Your task to perform on an android device: manage bookmarks in the chrome app Image 0: 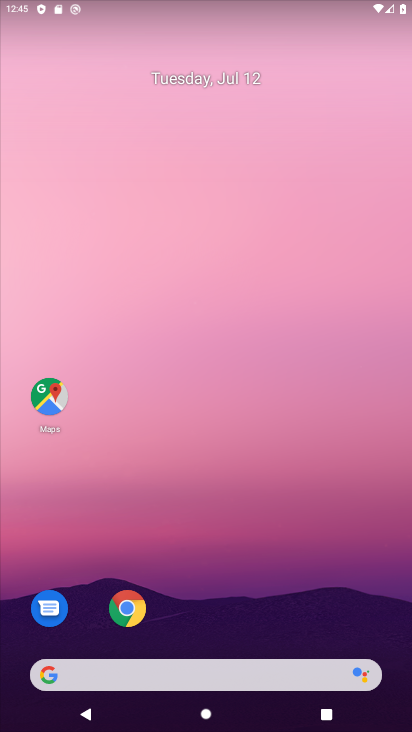
Step 0: drag from (271, 647) to (271, 306)
Your task to perform on an android device: manage bookmarks in the chrome app Image 1: 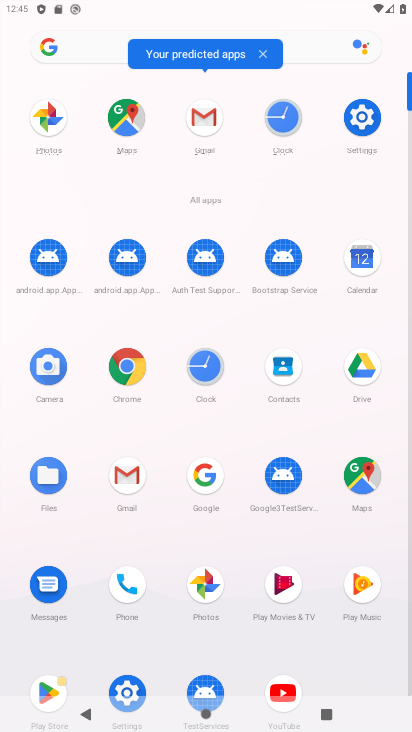
Step 1: click (140, 366)
Your task to perform on an android device: manage bookmarks in the chrome app Image 2: 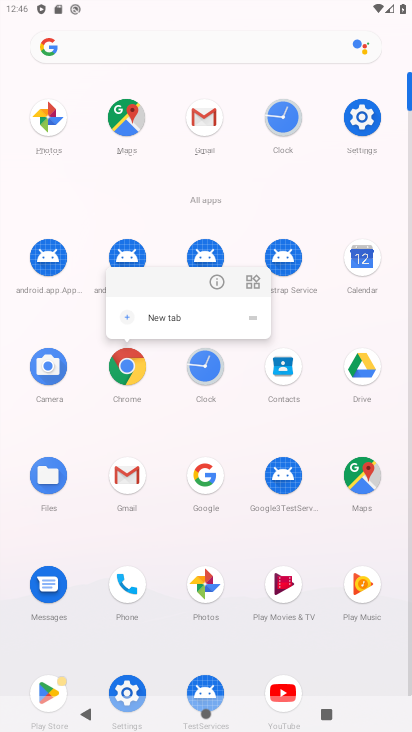
Step 2: click (124, 359)
Your task to perform on an android device: manage bookmarks in the chrome app Image 3: 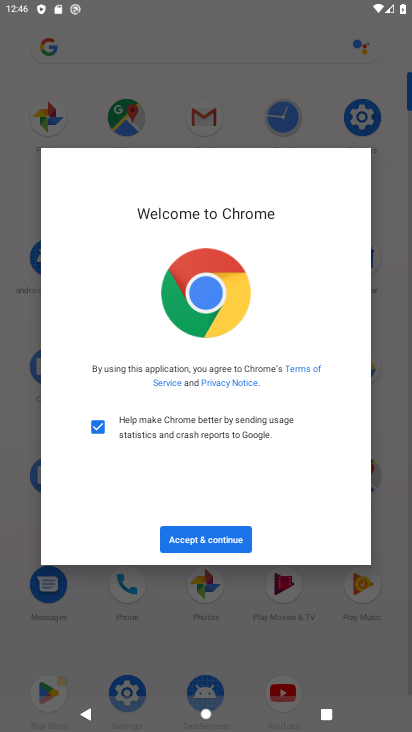
Step 3: click (218, 532)
Your task to perform on an android device: manage bookmarks in the chrome app Image 4: 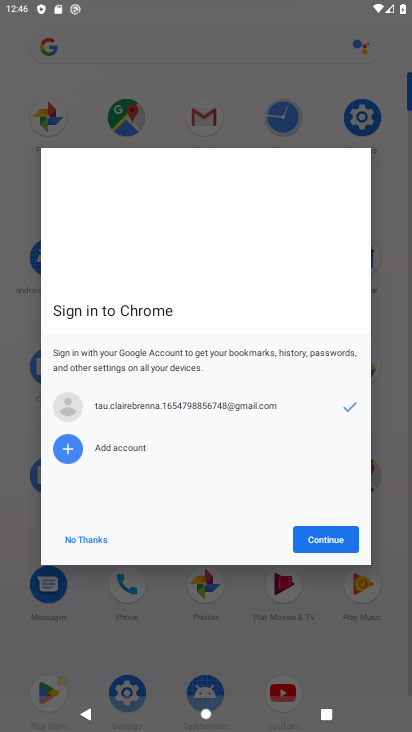
Step 4: click (312, 541)
Your task to perform on an android device: manage bookmarks in the chrome app Image 5: 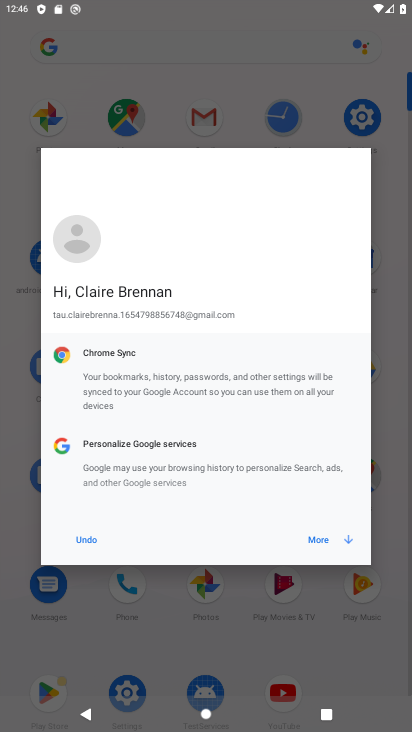
Step 5: click (332, 528)
Your task to perform on an android device: manage bookmarks in the chrome app Image 6: 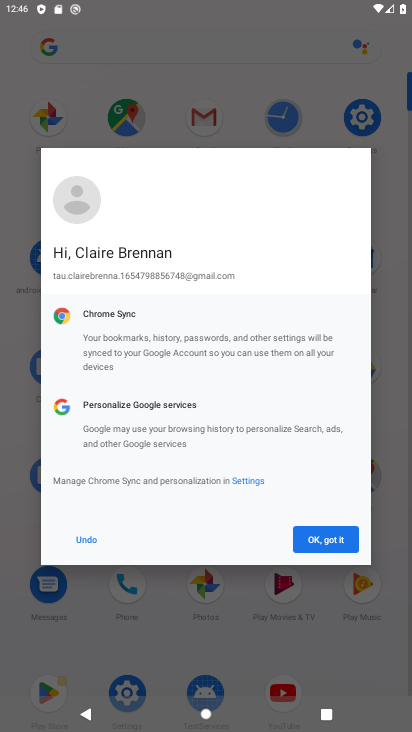
Step 6: click (332, 528)
Your task to perform on an android device: manage bookmarks in the chrome app Image 7: 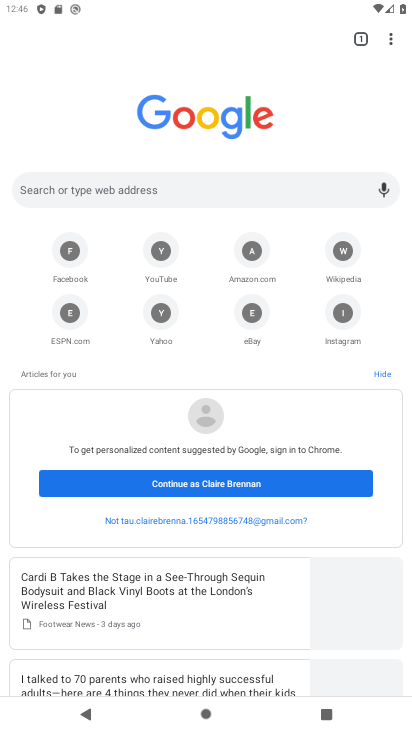
Step 7: click (382, 34)
Your task to perform on an android device: manage bookmarks in the chrome app Image 8: 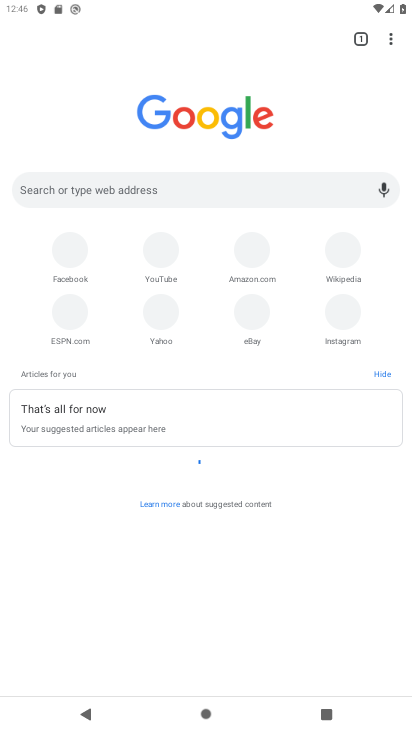
Step 8: click (398, 25)
Your task to perform on an android device: manage bookmarks in the chrome app Image 9: 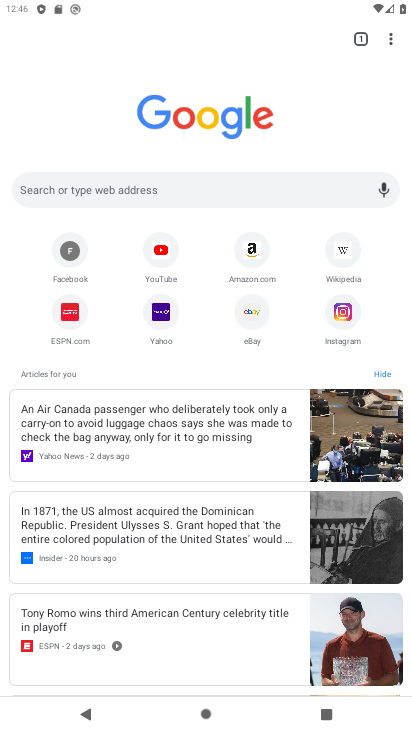
Step 9: click (398, 27)
Your task to perform on an android device: manage bookmarks in the chrome app Image 10: 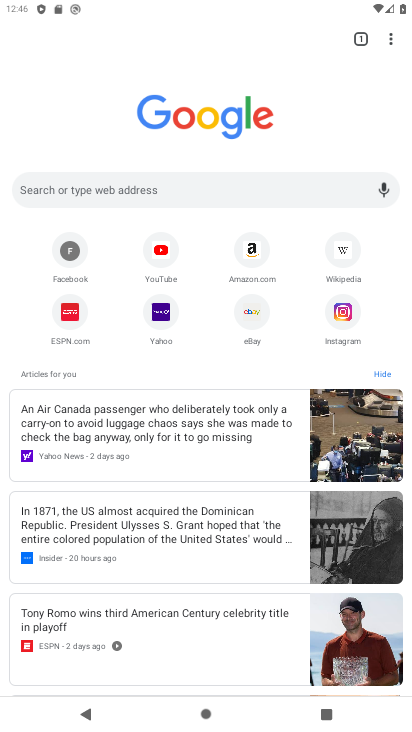
Step 10: click (390, 42)
Your task to perform on an android device: manage bookmarks in the chrome app Image 11: 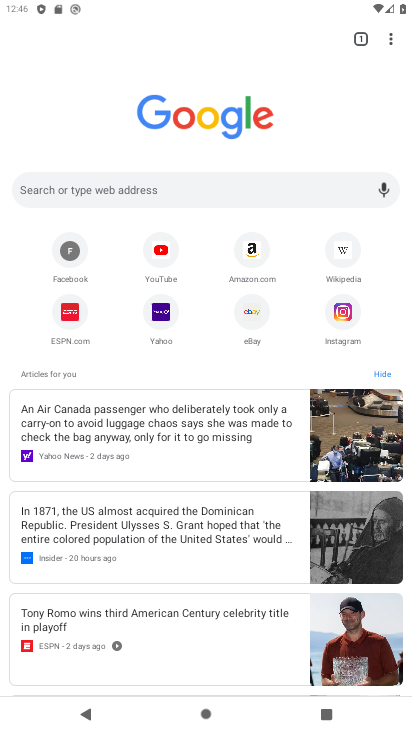
Step 11: click (390, 42)
Your task to perform on an android device: manage bookmarks in the chrome app Image 12: 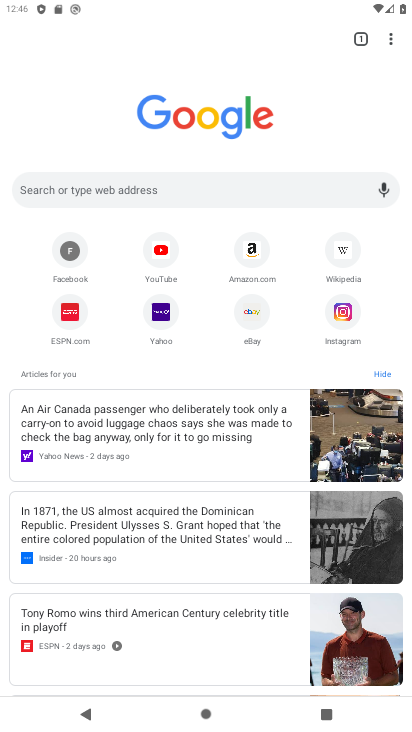
Step 12: click (390, 42)
Your task to perform on an android device: manage bookmarks in the chrome app Image 13: 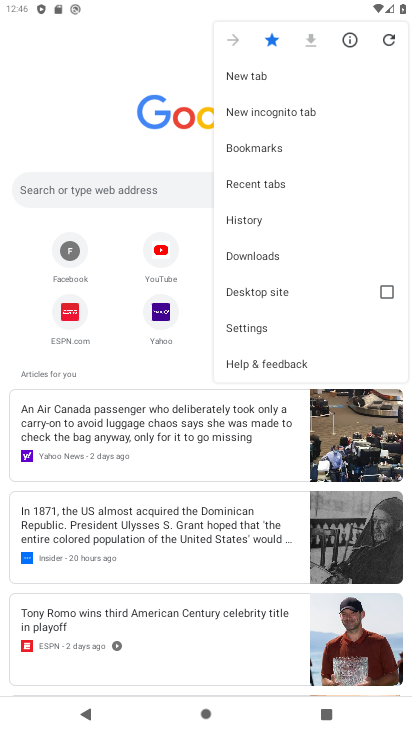
Step 13: click (270, 139)
Your task to perform on an android device: manage bookmarks in the chrome app Image 14: 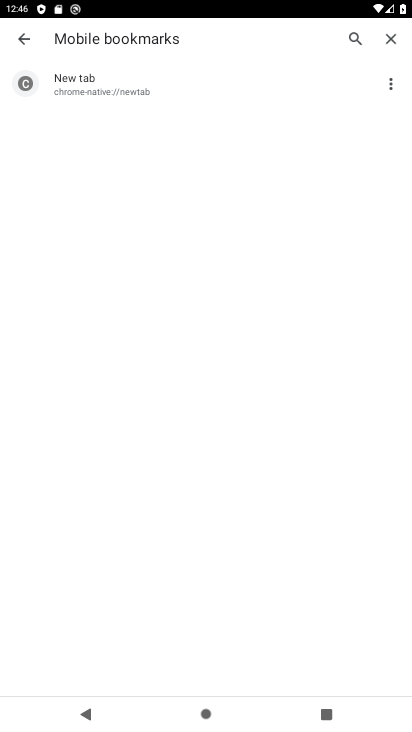
Step 14: task complete